Your task to perform on an android device: What is the recent news? Image 0: 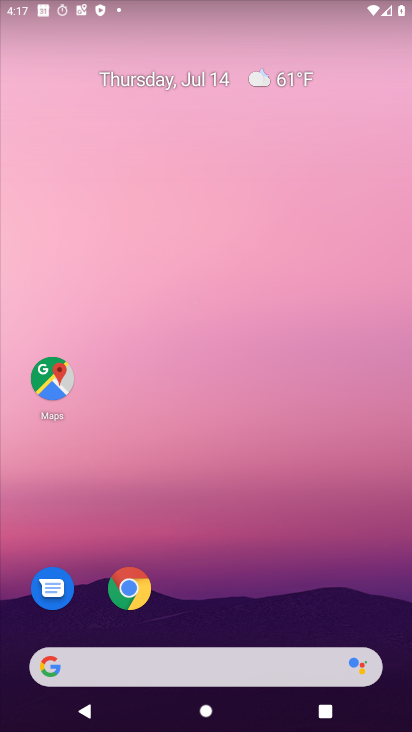
Step 0: drag from (193, 677) to (321, 206)
Your task to perform on an android device: What is the recent news? Image 1: 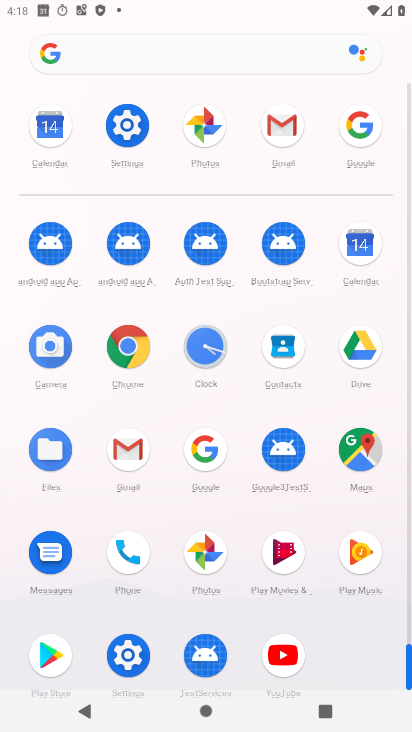
Step 1: click (357, 124)
Your task to perform on an android device: What is the recent news? Image 2: 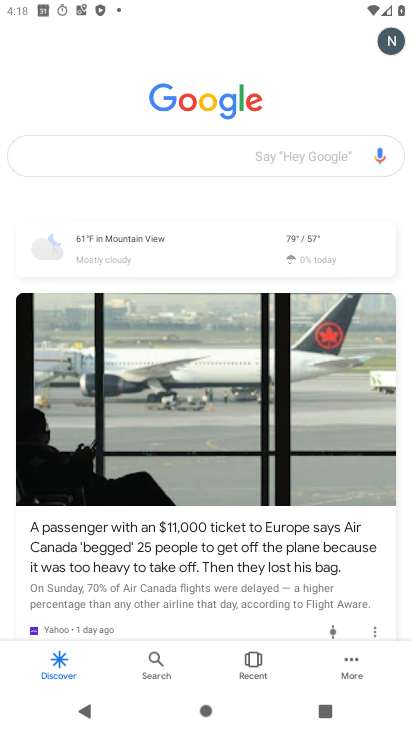
Step 2: click (274, 156)
Your task to perform on an android device: What is the recent news? Image 3: 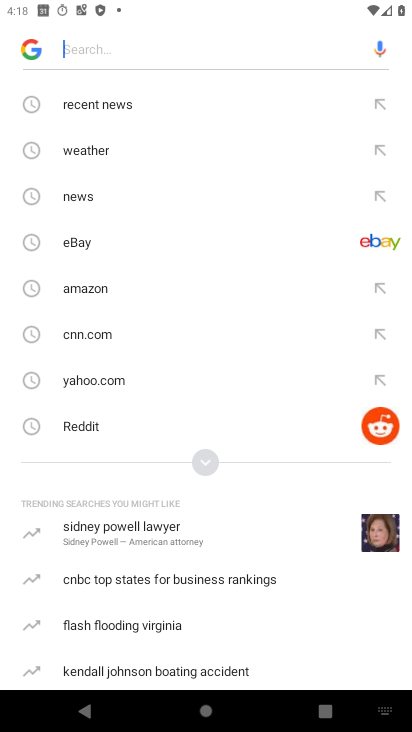
Step 3: click (119, 105)
Your task to perform on an android device: What is the recent news? Image 4: 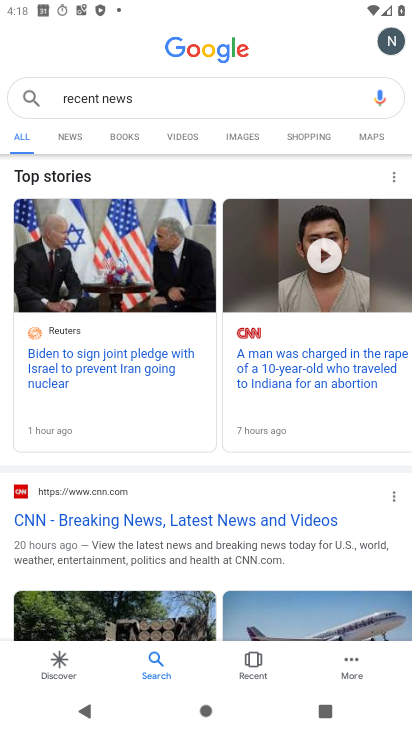
Step 4: click (155, 355)
Your task to perform on an android device: What is the recent news? Image 5: 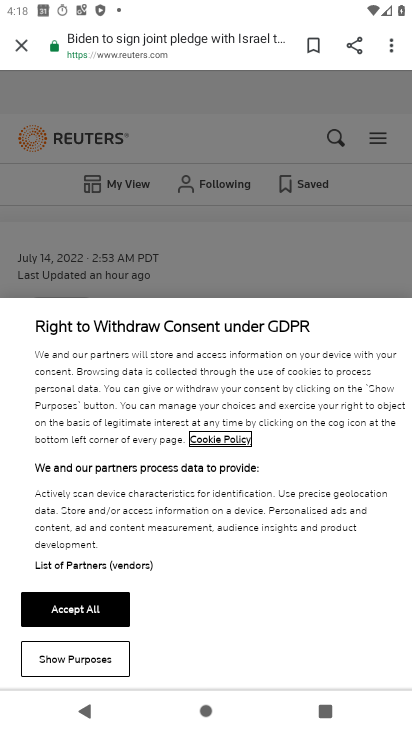
Step 5: task complete